Your task to perform on an android device: Go to notification settings Image 0: 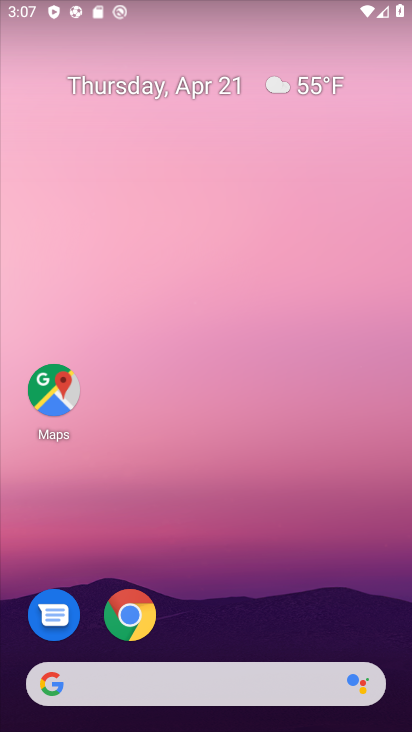
Step 0: drag from (219, 639) to (257, 0)
Your task to perform on an android device: Go to notification settings Image 1: 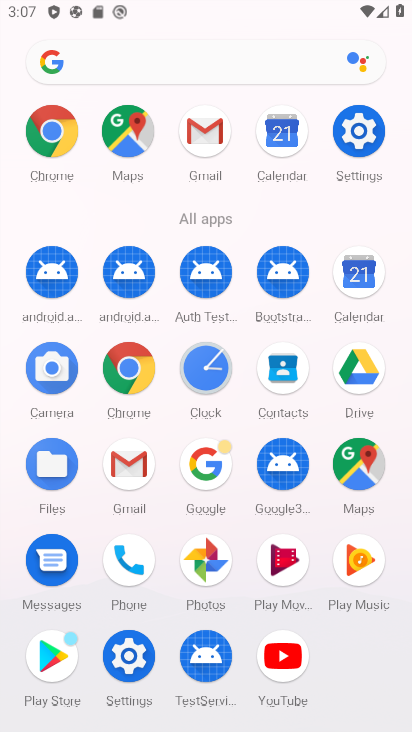
Step 1: click (360, 124)
Your task to perform on an android device: Go to notification settings Image 2: 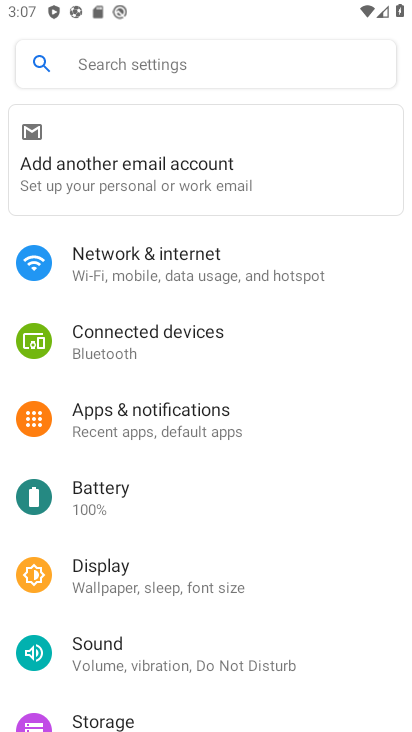
Step 2: click (243, 411)
Your task to perform on an android device: Go to notification settings Image 3: 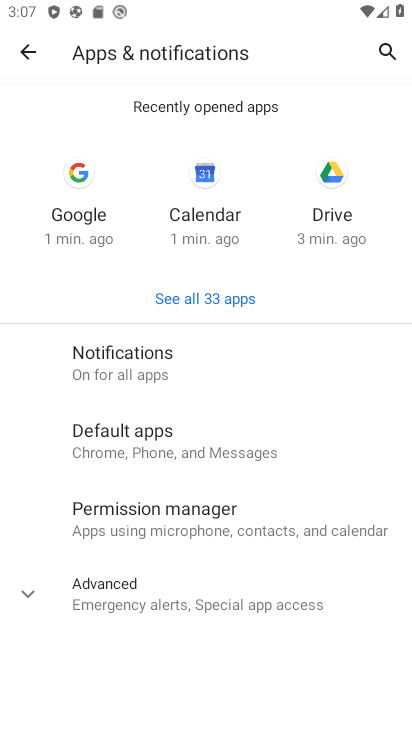
Step 3: click (180, 356)
Your task to perform on an android device: Go to notification settings Image 4: 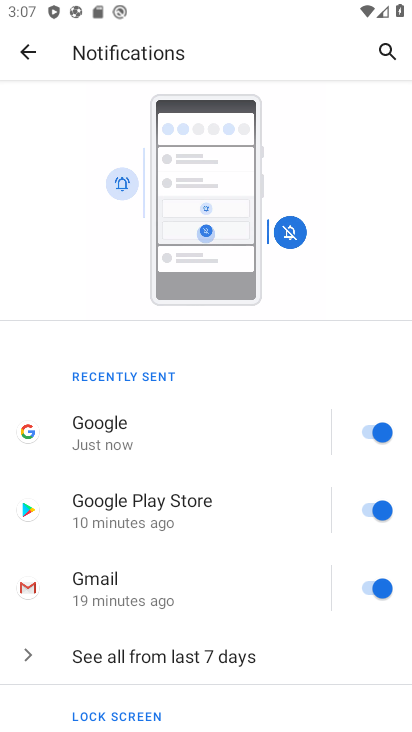
Step 4: drag from (259, 595) to (277, 364)
Your task to perform on an android device: Go to notification settings Image 5: 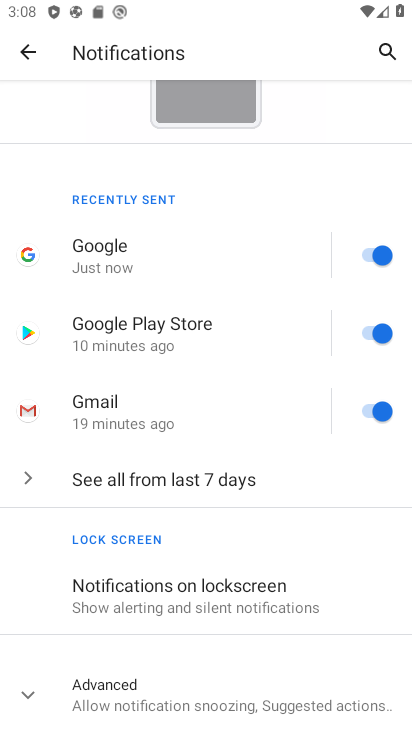
Step 5: click (373, 248)
Your task to perform on an android device: Go to notification settings Image 6: 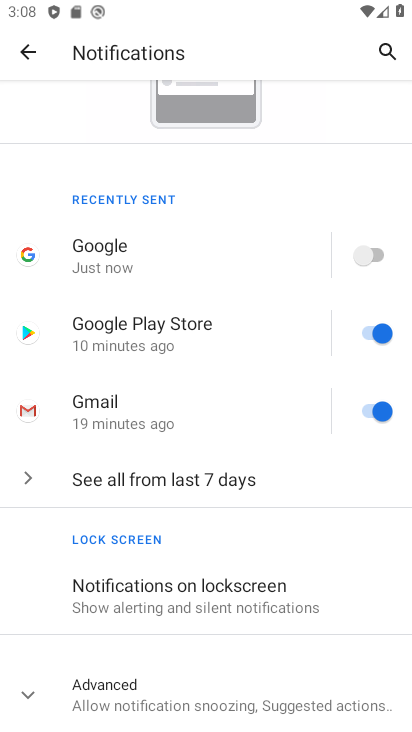
Step 6: click (370, 333)
Your task to perform on an android device: Go to notification settings Image 7: 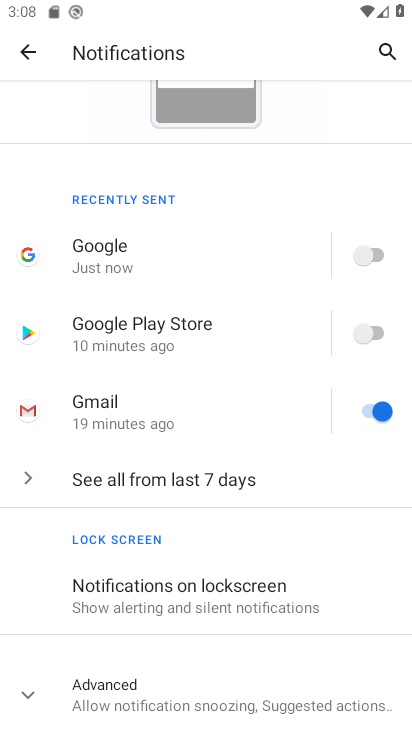
Step 7: click (375, 413)
Your task to perform on an android device: Go to notification settings Image 8: 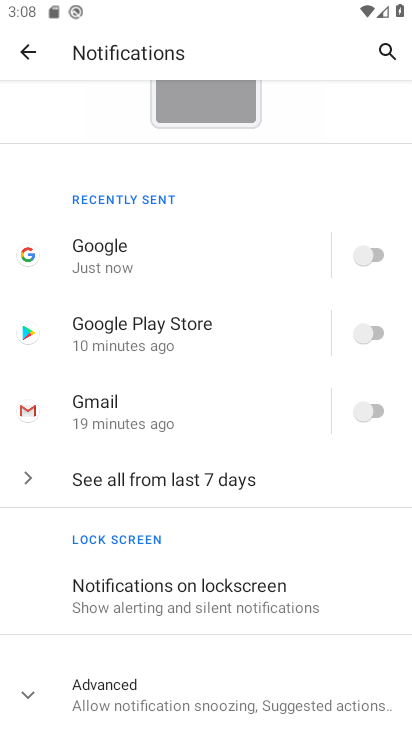
Step 8: click (315, 585)
Your task to perform on an android device: Go to notification settings Image 9: 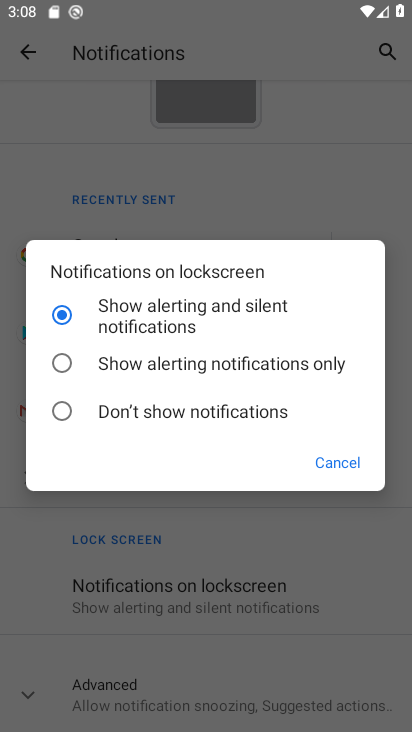
Step 9: click (63, 362)
Your task to perform on an android device: Go to notification settings Image 10: 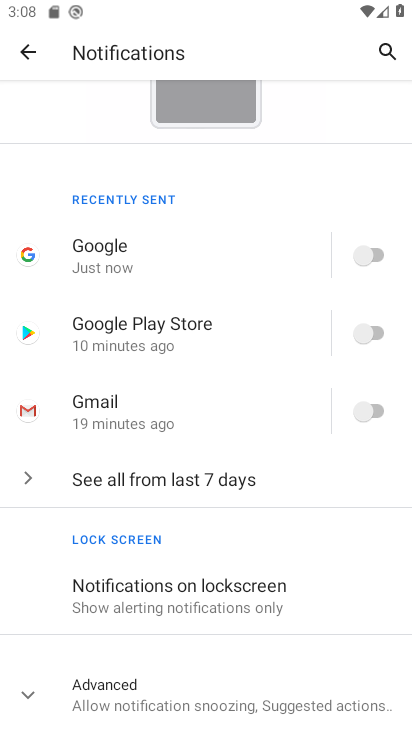
Step 10: click (32, 685)
Your task to perform on an android device: Go to notification settings Image 11: 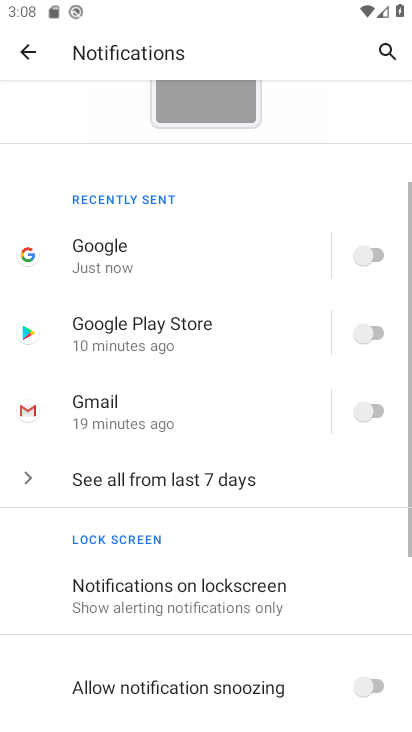
Step 11: drag from (178, 691) to (200, 336)
Your task to perform on an android device: Go to notification settings Image 12: 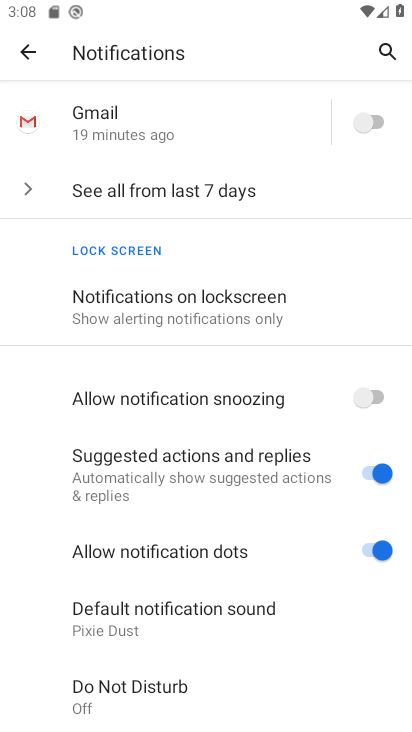
Step 12: click (374, 464)
Your task to perform on an android device: Go to notification settings Image 13: 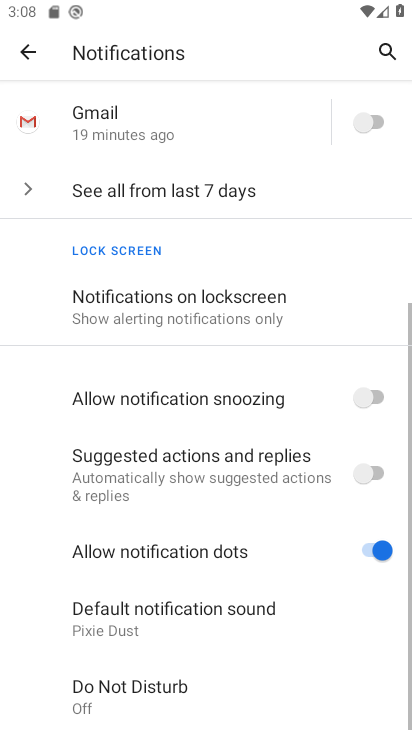
Step 13: click (375, 543)
Your task to perform on an android device: Go to notification settings Image 14: 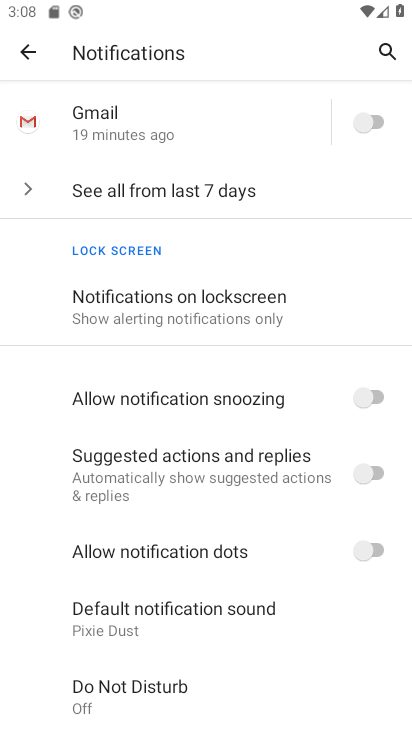
Step 14: task complete